Your task to perform on an android device: What's a good restaurant in Houston? Image 0: 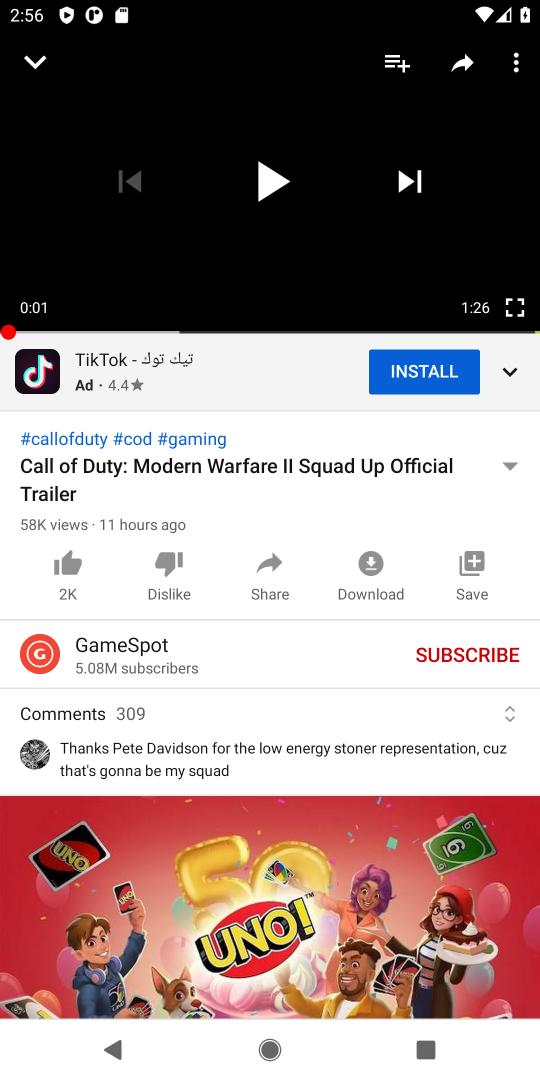
Step 0: press home button
Your task to perform on an android device: What's a good restaurant in Houston? Image 1: 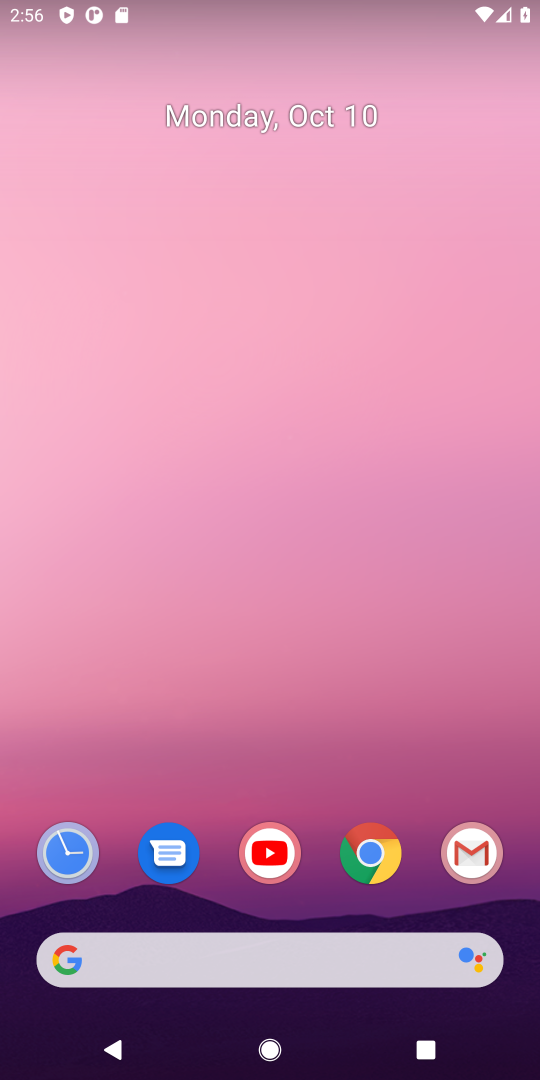
Step 1: click (383, 880)
Your task to perform on an android device: What's a good restaurant in Houston? Image 2: 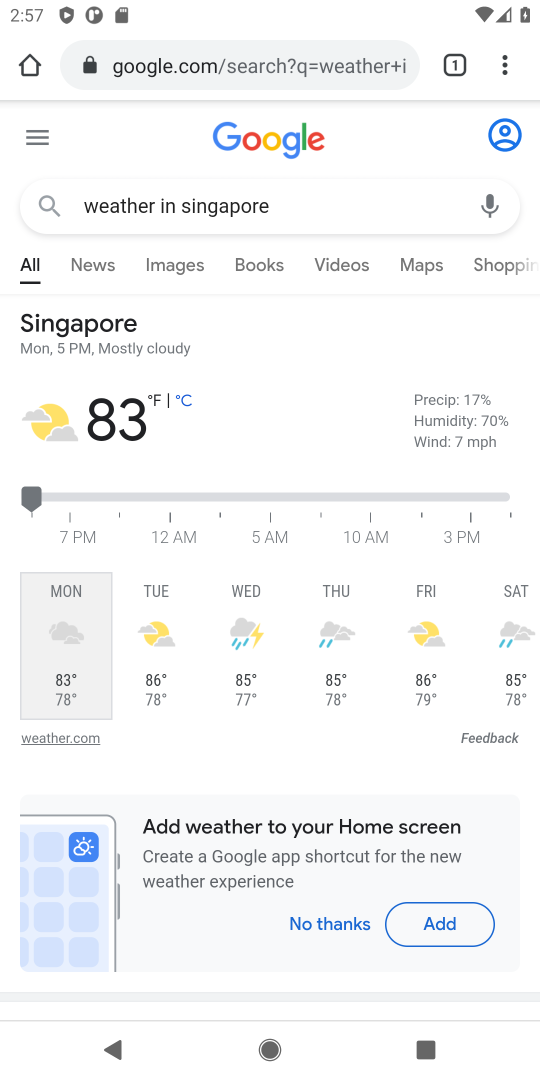
Step 2: click (188, 75)
Your task to perform on an android device: What's a good restaurant in Houston? Image 3: 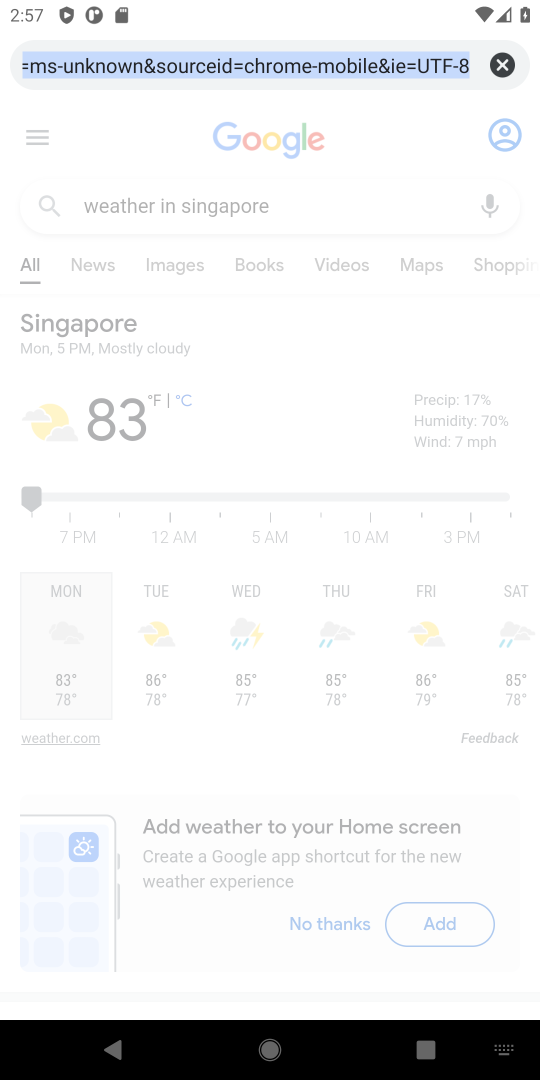
Step 3: type "good restaurant in houston"
Your task to perform on an android device: What's a good restaurant in Houston? Image 4: 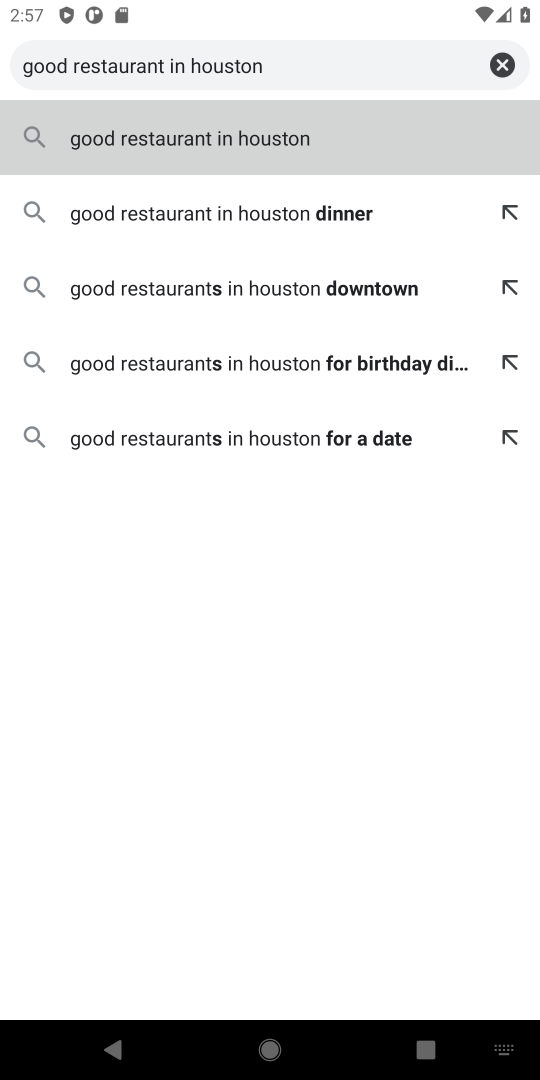
Step 4: click (249, 150)
Your task to perform on an android device: What's a good restaurant in Houston? Image 5: 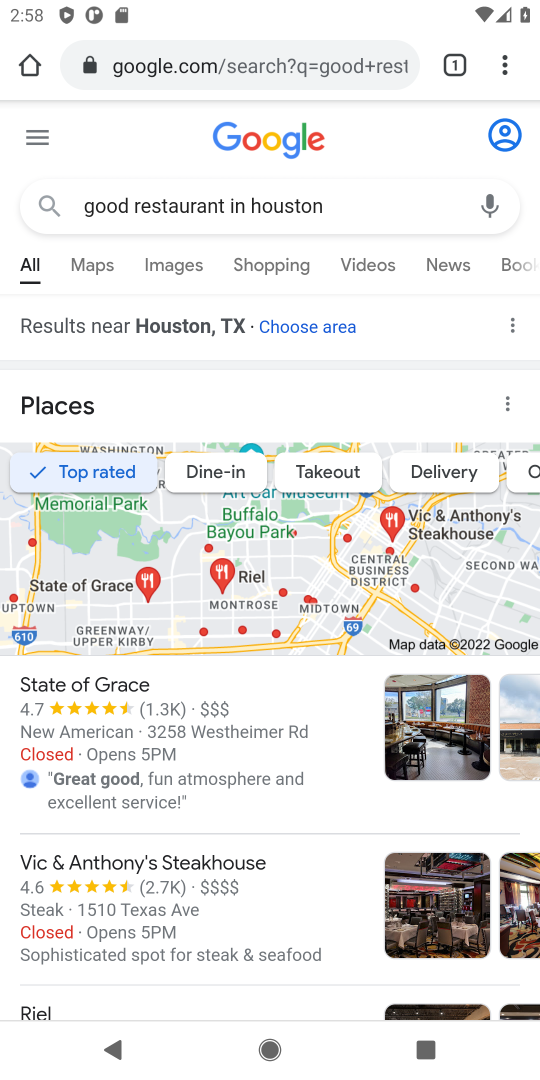
Step 5: task complete